Your task to perform on an android device: Open Android settings Image 0: 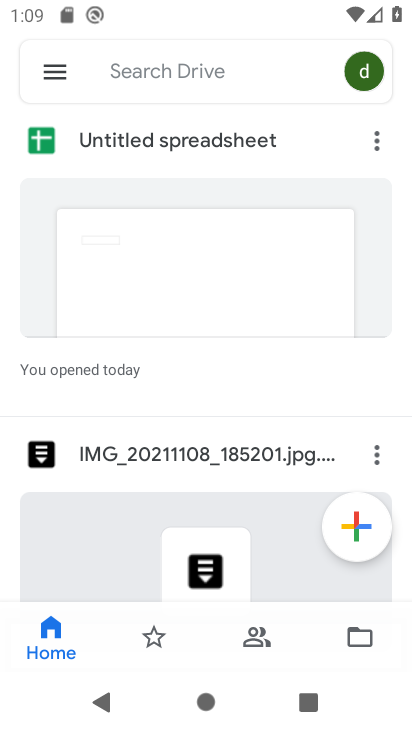
Step 0: press home button
Your task to perform on an android device: Open Android settings Image 1: 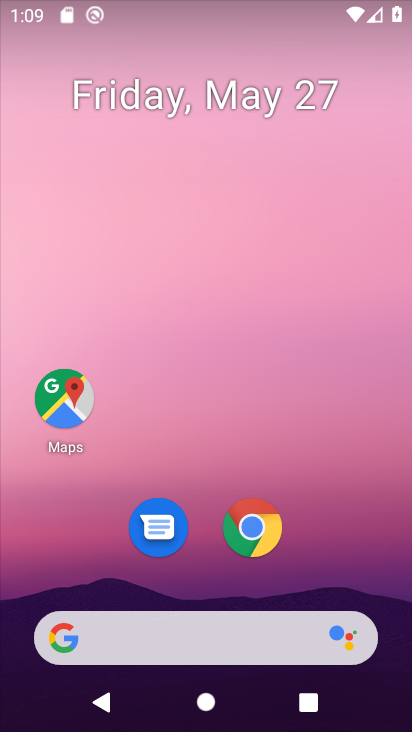
Step 1: drag from (322, 585) to (310, 458)
Your task to perform on an android device: Open Android settings Image 2: 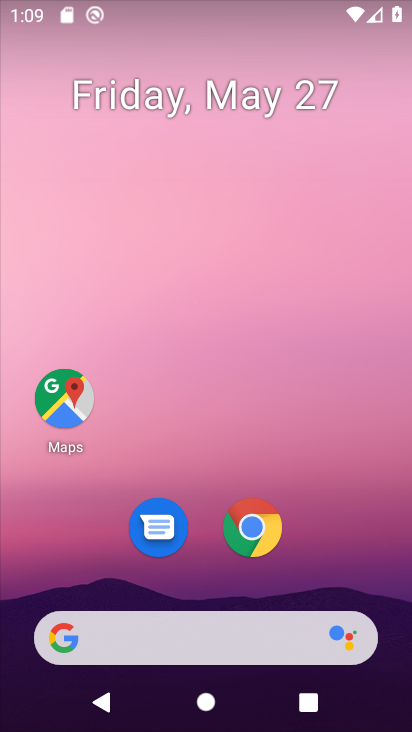
Step 2: drag from (392, 563) to (368, 15)
Your task to perform on an android device: Open Android settings Image 3: 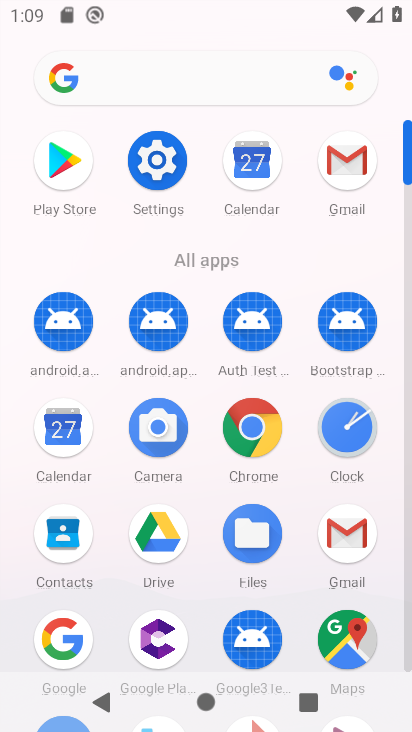
Step 3: click (169, 168)
Your task to perform on an android device: Open Android settings Image 4: 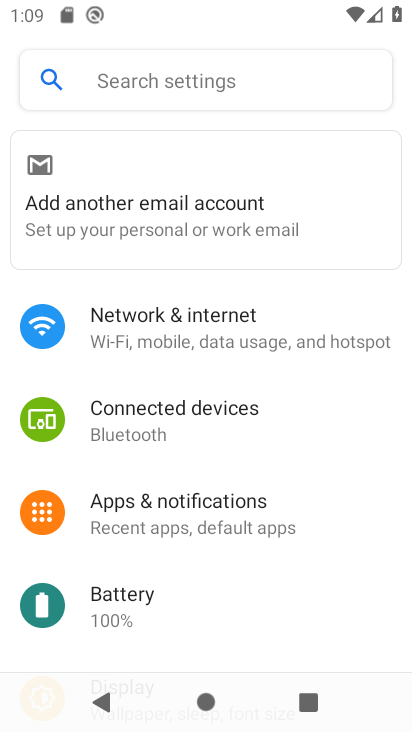
Step 4: task complete